Your task to perform on an android device: turn off javascript in the chrome app Image 0: 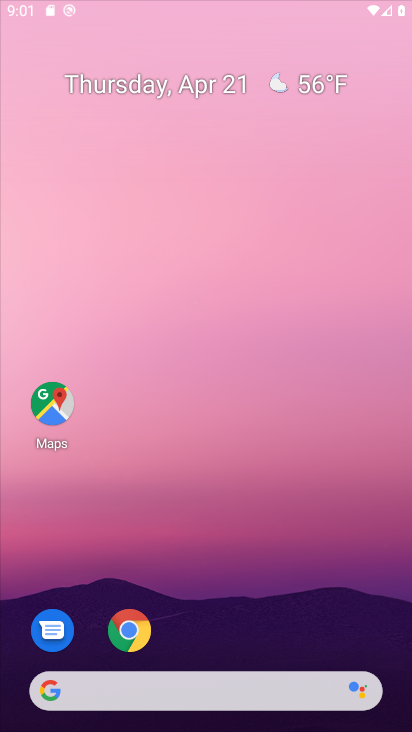
Step 0: click (292, 105)
Your task to perform on an android device: turn off javascript in the chrome app Image 1: 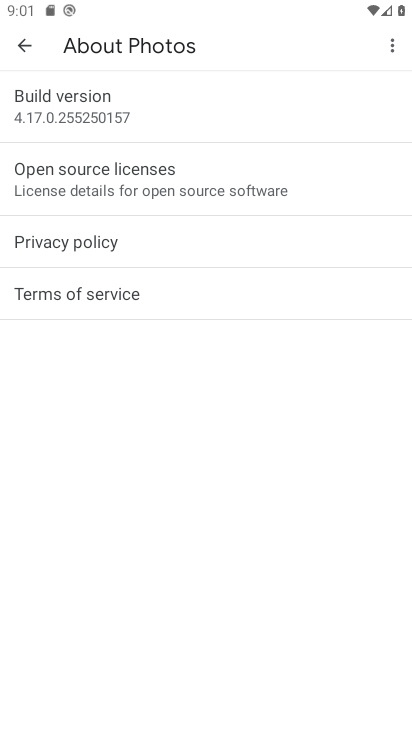
Step 1: press home button
Your task to perform on an android device: turn off javascript in the chrome app Image 2: 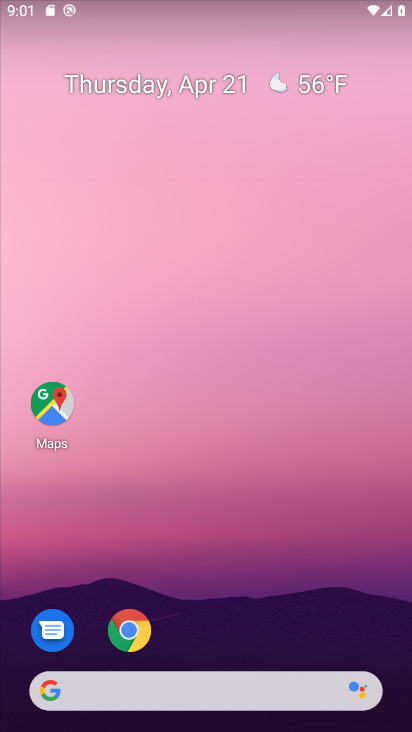
Step 2: click (130, 630)
Your task to perform on an android device: turn off javascript in the chrome app Image 3: 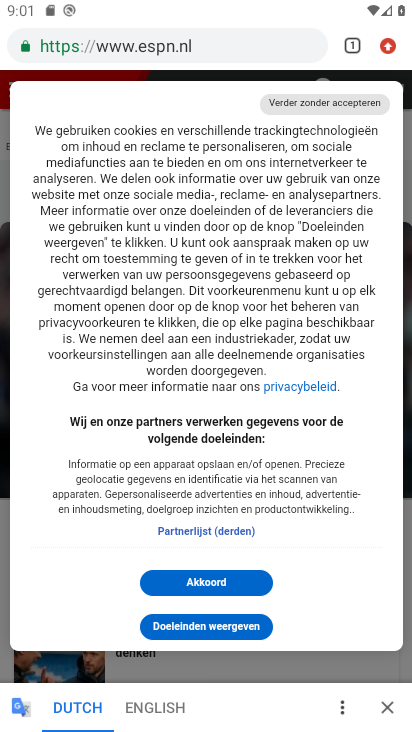
Step 3: click (391, 695)
Your task to perform on an android device: turn off javascript in the chrome app Image 4: 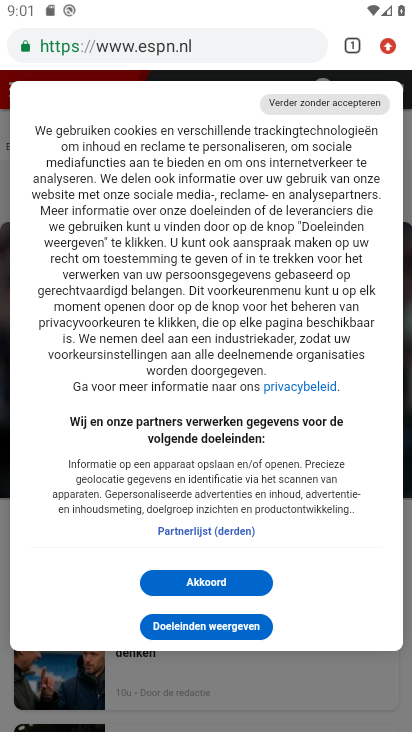
Step 4: click (384, 48)
Your task to perform on an android device: turn off javascript in the chrome app Image 5: 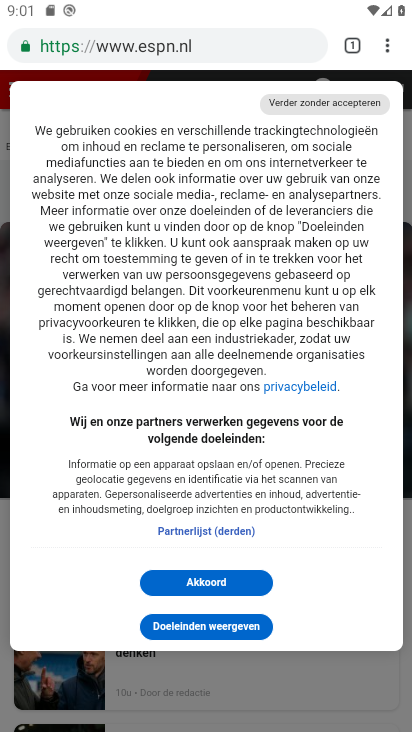
Step 5: click (380, 50)
Your task to perform on an android device: turn off javascript in the chrome app Image 6: 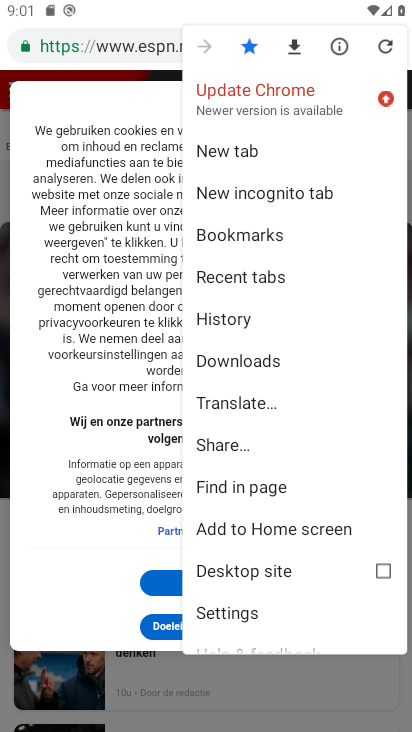
Step 6: click (208, 610)
Your task to perform on an android device: turn off javascript in the chrome app Image 7: 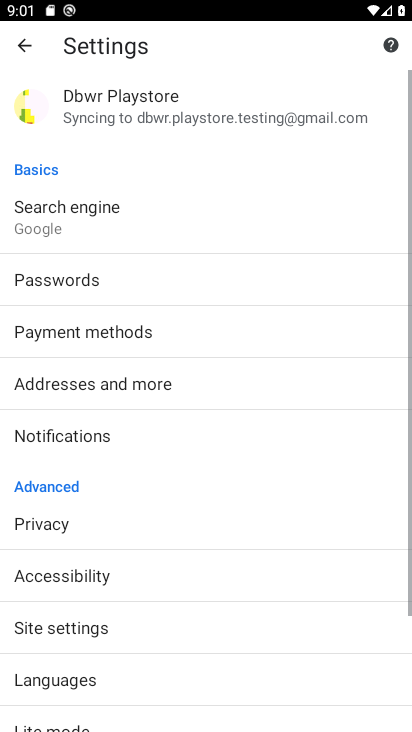
Step 7: click (63, 634)
Your task to perform on an android device: turn off javascript in the chrome app Image 8: 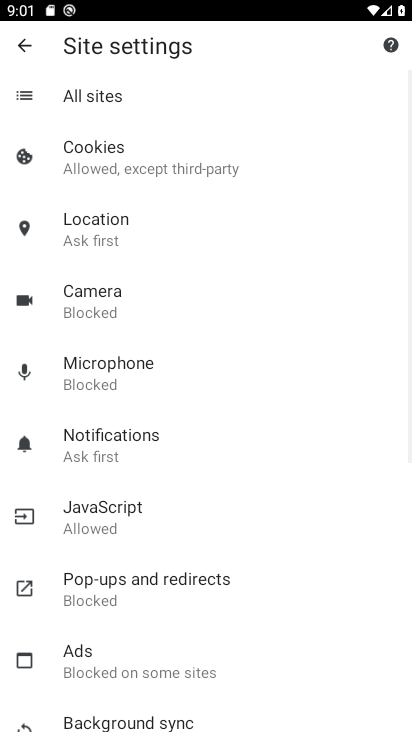
Step 8: click (117, 524)
Your task to perform on an android device: turn off javascript in the chrome app Image 9: 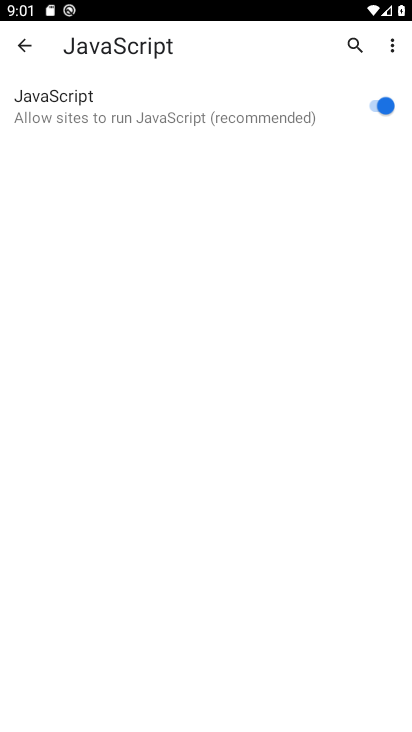
Step 9: click (369, 101)
Your task to perform on an android device: turn off javascript in the chrome app Image 10: 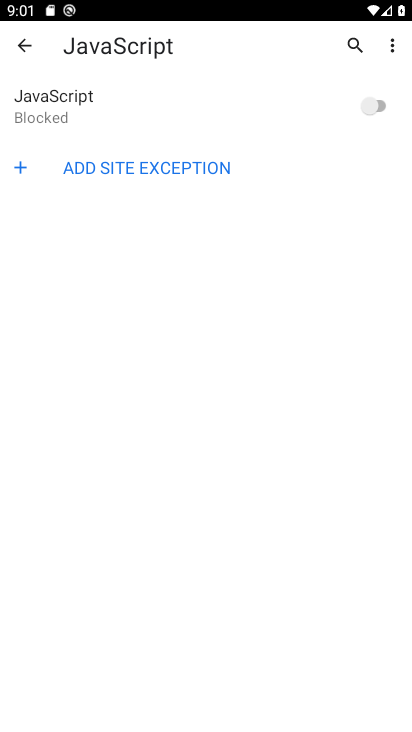
Step 10: task complete